Your task to perform on an android device: Is it going to rain tomorrow? Image 0: 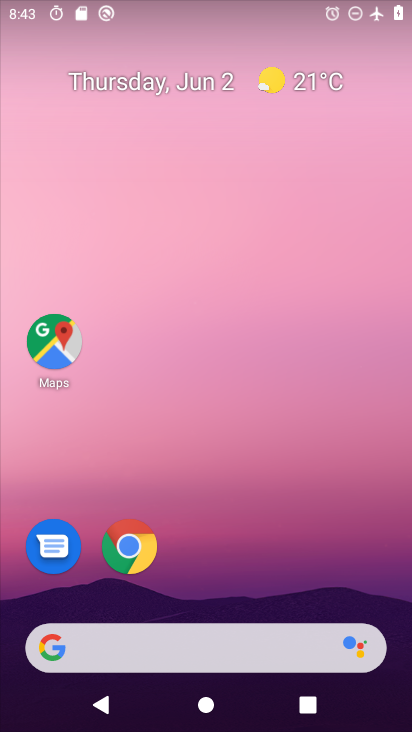
Step 0: drag from (320, 588) to (310, 214)
Your task to perform on an android device: Is it going to rain tomorrow? Image 1: 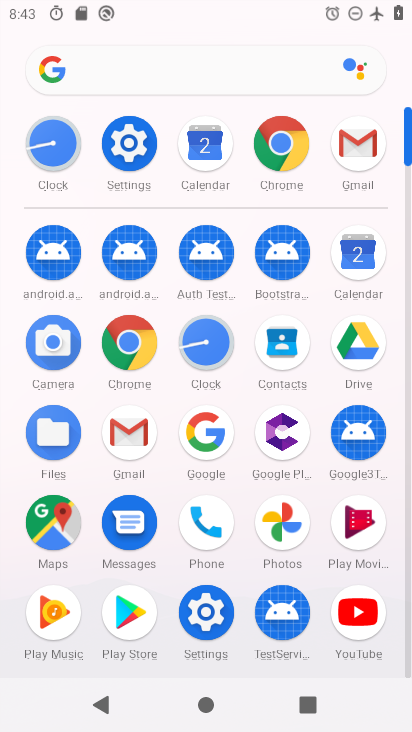
Step 1: click (116, 332)
Your task to perform on an android device: Is it going to rain tomorrow? Image 2: 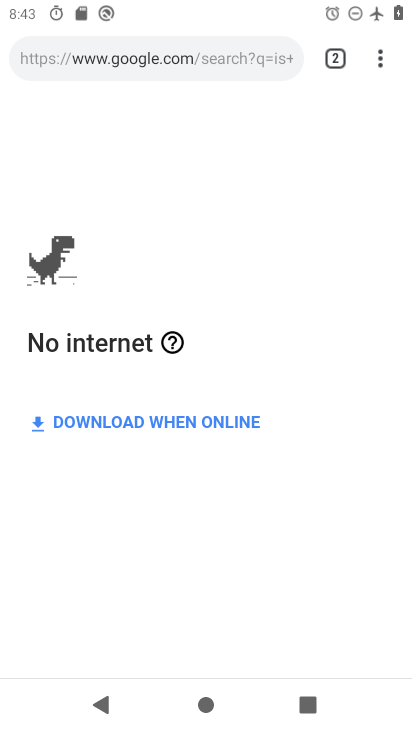
Step 2: click (130, 55)
Your task to perform on an android device: Is it going to rain tomorrow? Image 3: 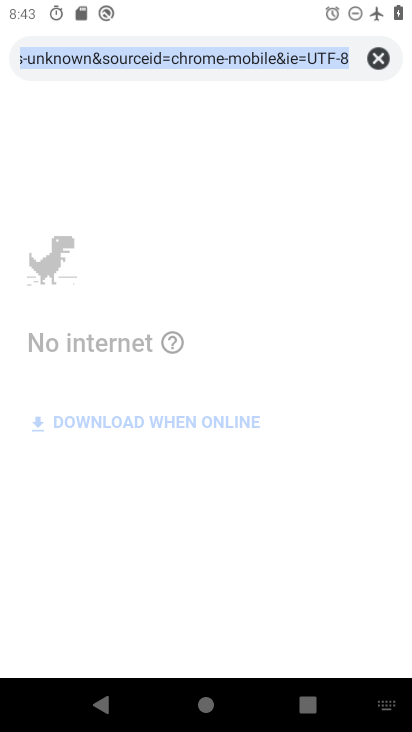
Step 3: click (379, 57)
Your task to perform on an android device: Is it going to rain tomorrow? Image 4: 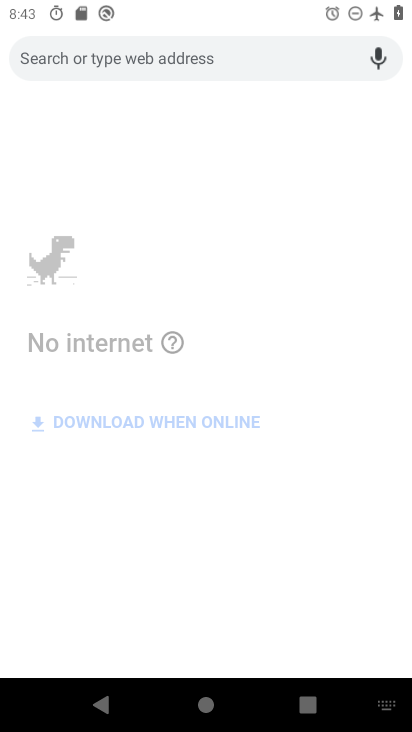
Step 4: click (175, 52)
Your task to perform on an android device: Is it going to rain tomorrow? Image 5: 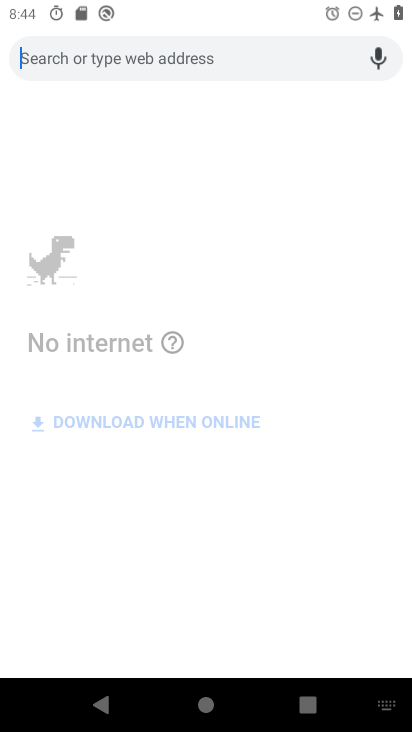
Step 5: type "is it going to rain tomorrow"
Your task to perform on an android device: Is it going to rain tomorrow? Image 6: 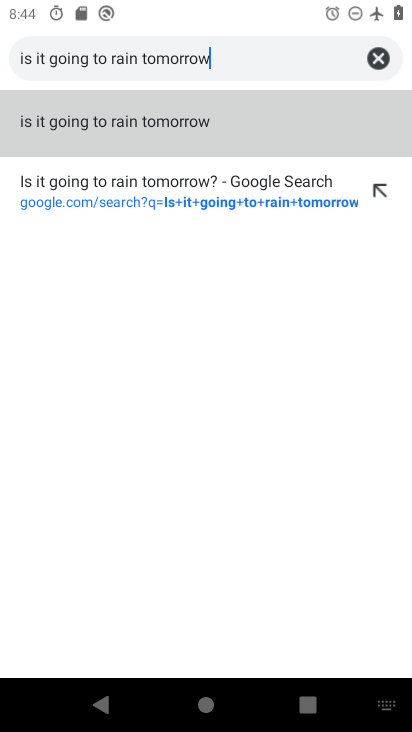
Step 6: task complete